Your task to perform on an android device: change keyboard looks Image 0: 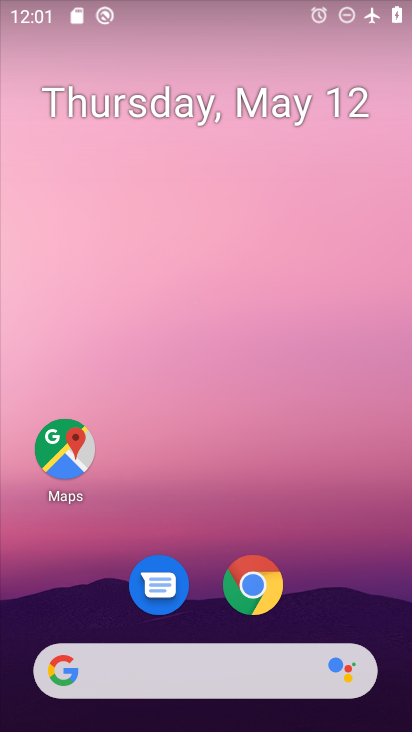
Step 0: drag from (249, 462) to (336, 14)
Your task to perform on an android device: change keyboard looks Image 1: 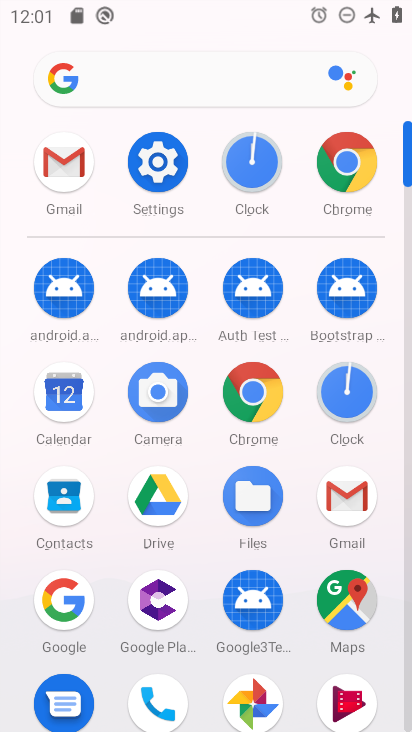
Step 1: click (161, 157)
Your task to perform on an android device: change keyboard looks Image 2: 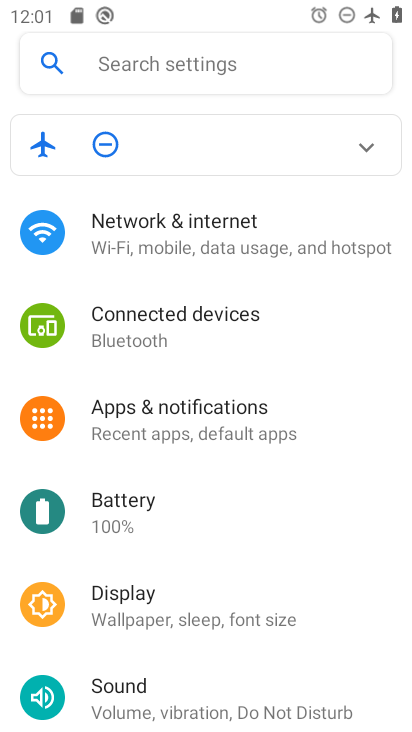
Step 2: drag from (229, 660) to (245, 124)
Your task to perform on an android device: change keyboard looks Image 3: 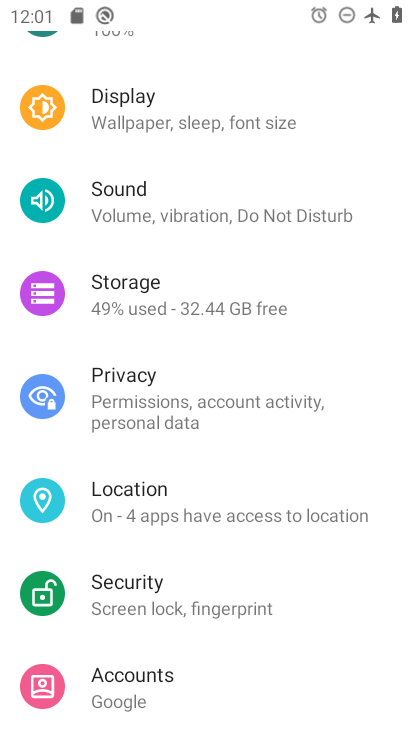
Step 3: drag from (225, 669) to (269, 70)
Your task to perform on an android device: change keyboard looks Image 4: 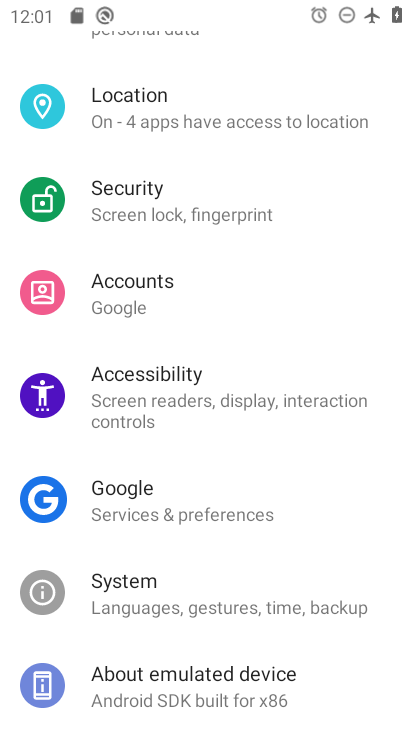
Step 4: click (210, 579)
Your task to perform on an android device: change keyboard looks Image 5: 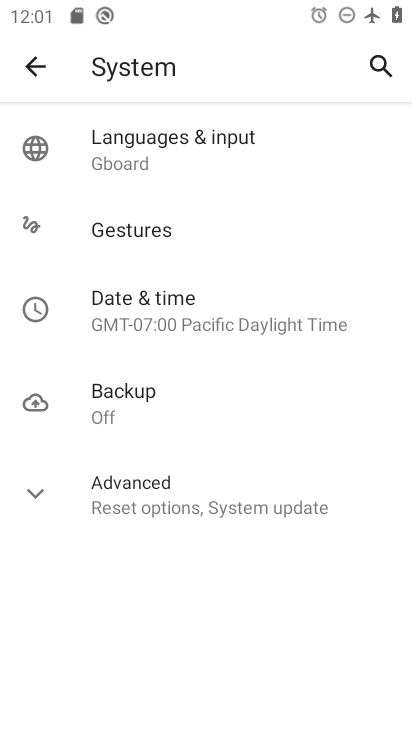
Step 5: click (202, 152)
Your task to perform on an android device: change keyboard looks Image 6: 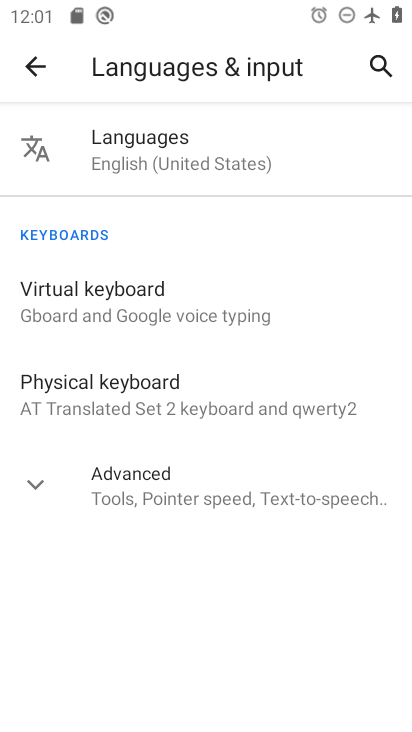
Step 6: click (137, 302)
Your task to perform on an android device: change keyboard looks Image 7: 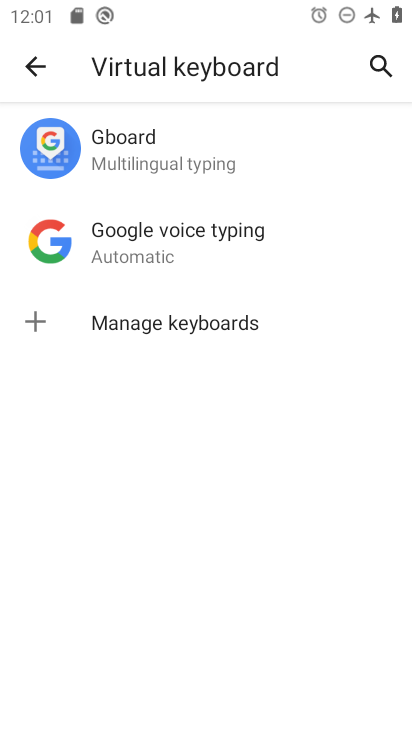
Step 7: click (170, 156)
Your task to perform on an android device: change keyboard looks Image 8: 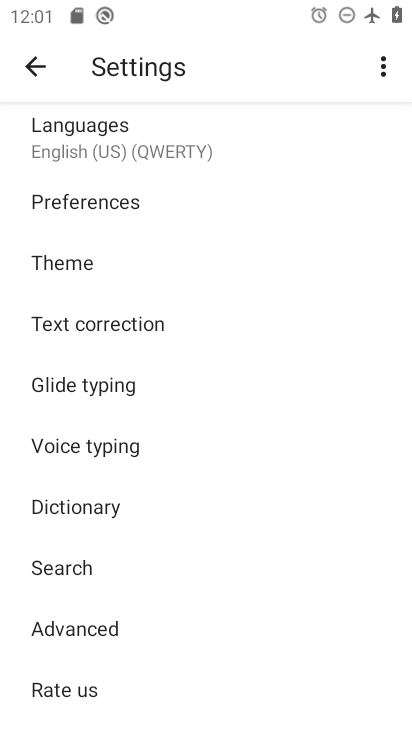
Step 8: click (84, 265)
Your task to perform on an android device: change keyboard looks Image 9: 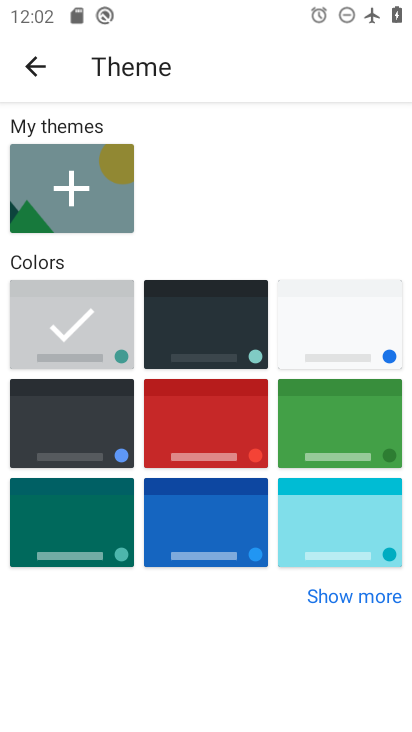
Step 9: click (215, 334)
Your task to perform on an android device: change keyboard looks Image 10: 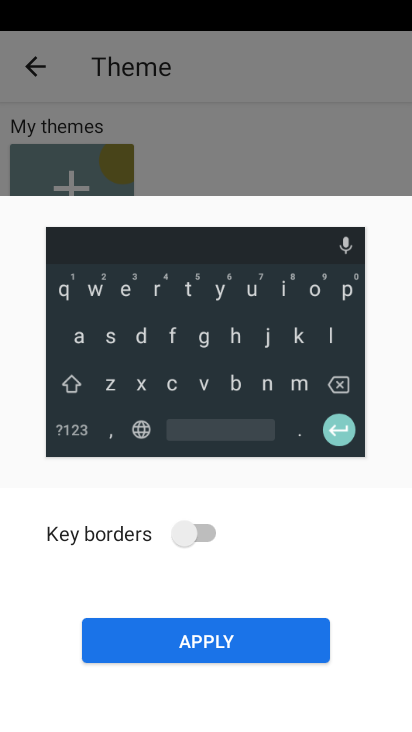
Step 10: click (196, 529)
Your task to perform on an android device: change keyboard looks Image 11: 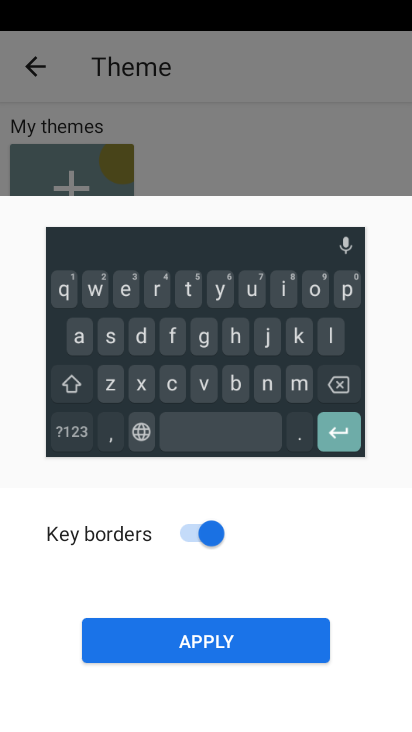
Step 11: click (230, 633)
Your task to perform on an android device: change keyboard looks Image 12: 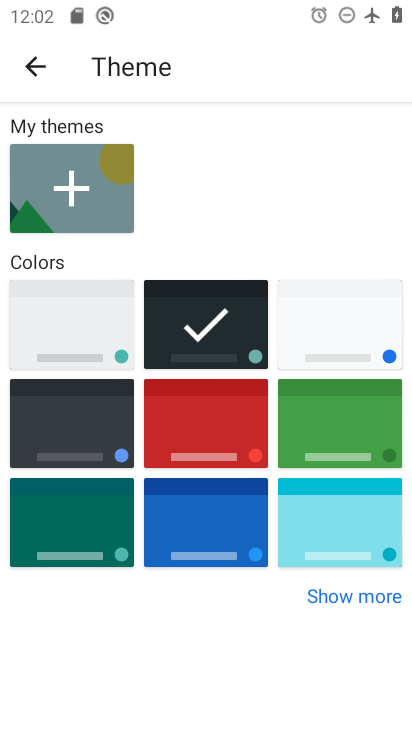
Step 12: task complete